Your task to perform on an android device: turn off priority inbox in the gmail app Image 0: 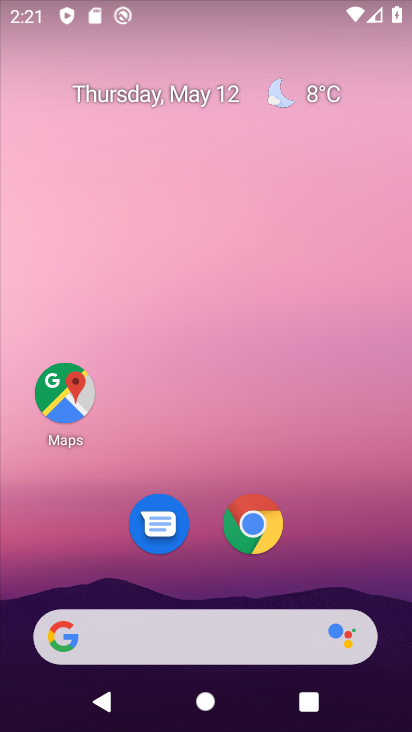
Step 0: drag from (270, 421) to (240, 1)
Your task to perform on an android device: turn off priority inbox in the gmail app Image 1: 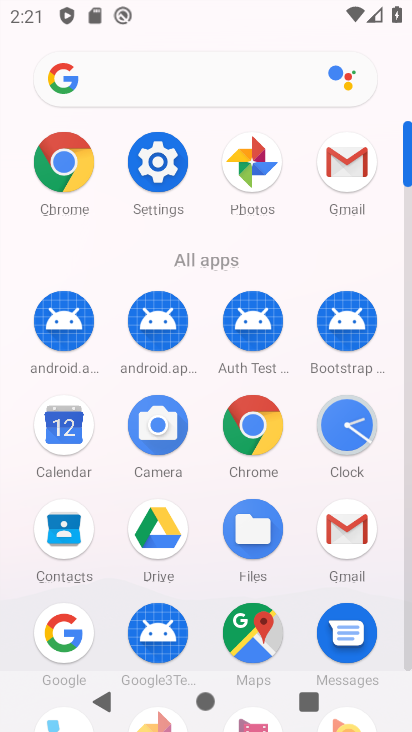
Step 1: click (340, 157)
Your task to perform on an android device: turn off priority inbox in the gmail app Image 2: 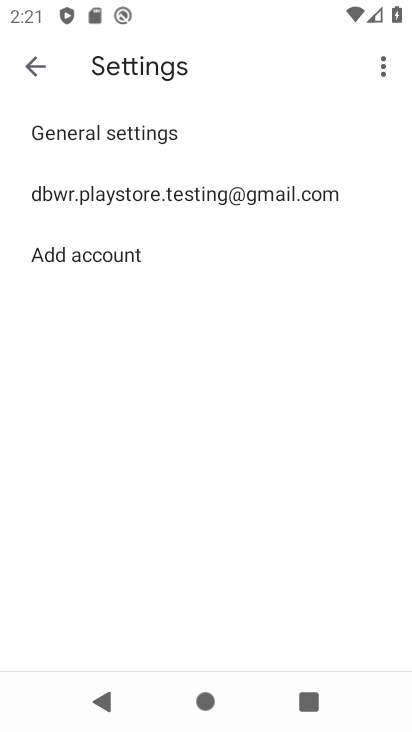
Step 2: click (181, 189)
Your task to perform on an android device: turn off priority inbox in the gmail app Image 3: 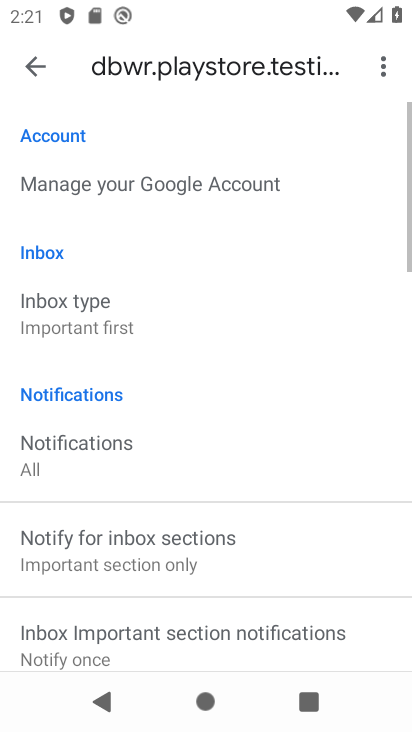
Step 3: click (91, 311)
Your task to perform on an android device: turn off priority inbox in the gmail app Image 4: 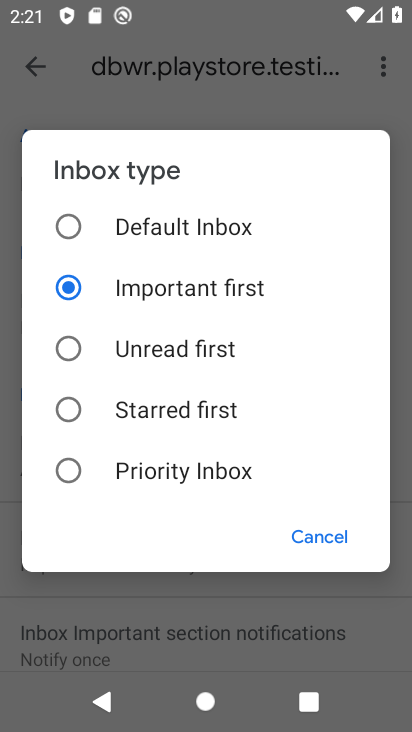
Step 4: click (72, 468)
Your task to perform on an android device: turn off priority inbox in the gmail app Image 5: 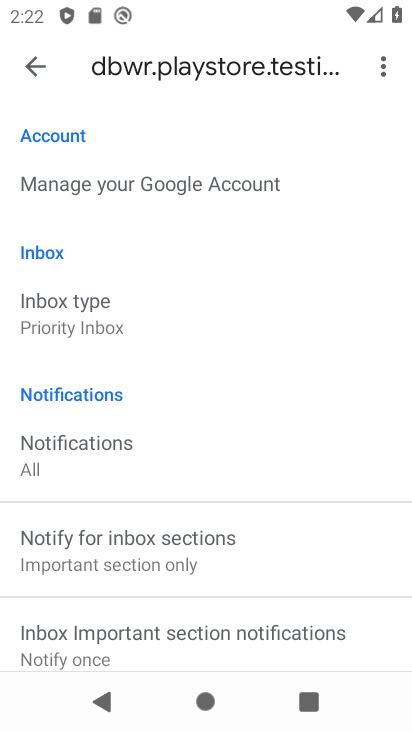
Step 5: click (88, 320)
Your task to perform on an android device: turn off priority inbox in the gmail app Image 6: 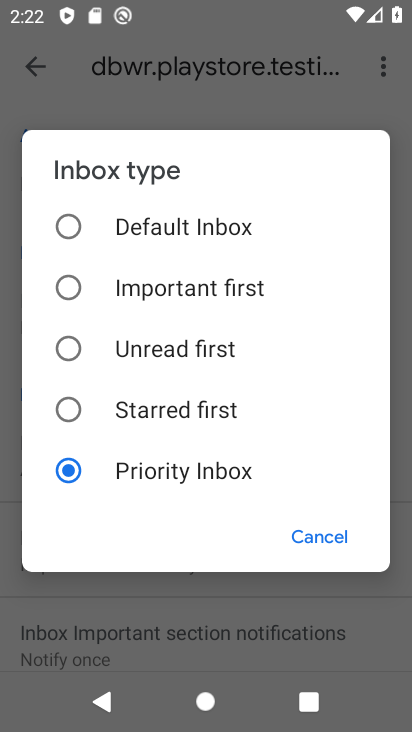
Step 6: click (74, 216)
Your task to perform on an android device: turn off priority inbox in the gmail app Image 7: 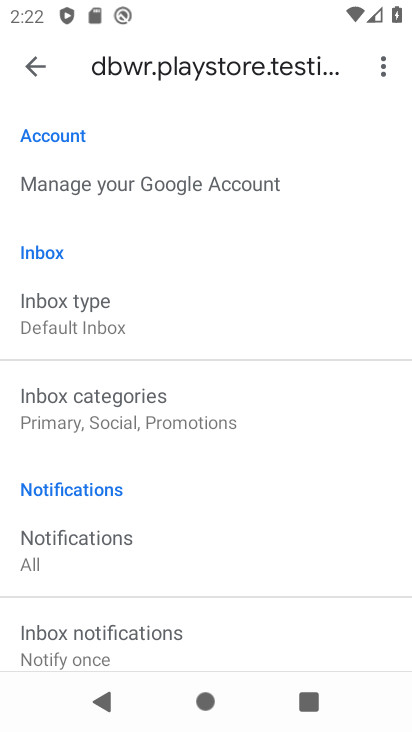
Step 7: task complete